Your task to perform on an android device: open wifi settings Image 0: 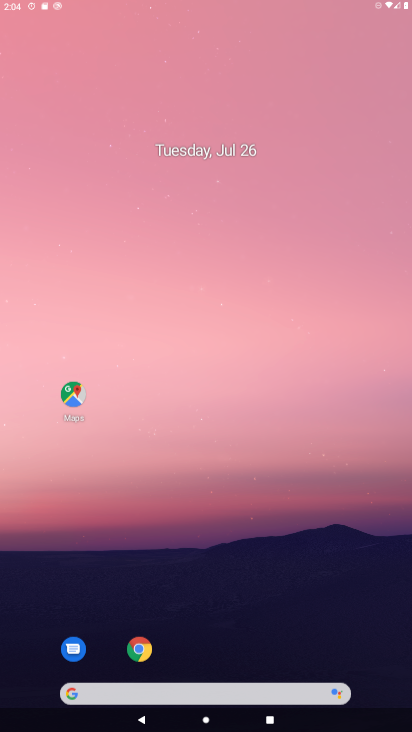
Step 0: drag from (182, 180) to (123, 6)
Your task to perform on an android device: open wifi settings Image 1: 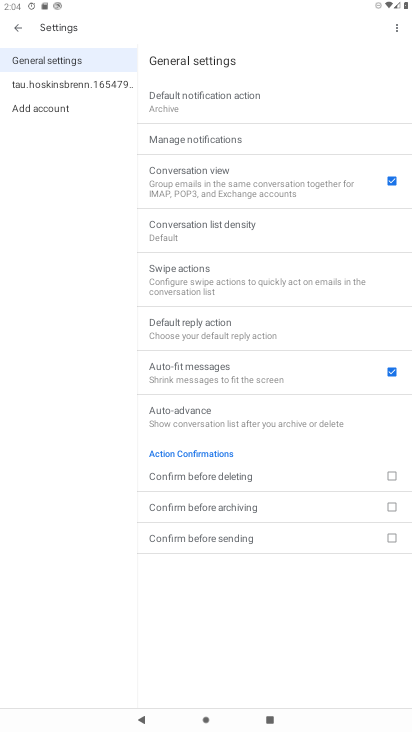
Step 1: press home button
Your task to perform on an android device: open wifi settings Image 2: 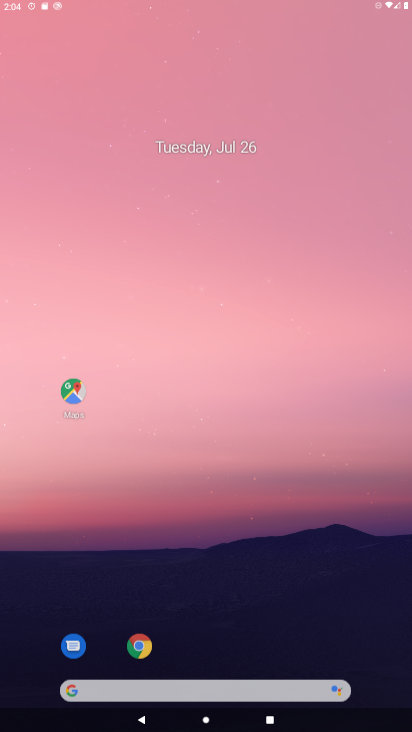
Step 2: drag from (351, 679) to (137, 17)
Your task to perform on an android device: open wifi settings Image 3: 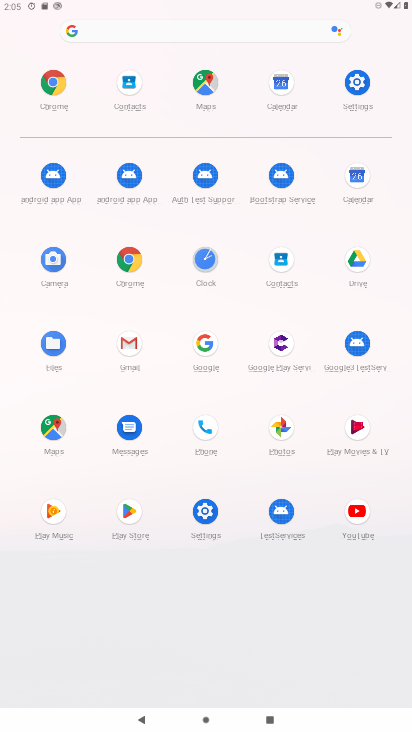
Step 3: click (203, 517)
Your task to perform on an android device: open wifi settings Image 4: 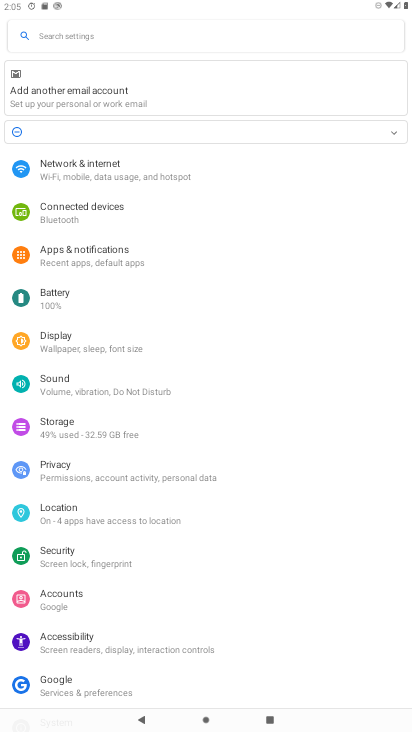
Step 4: click (104, 169)
Your task to perform on an android device: open wifi settings Image 5: 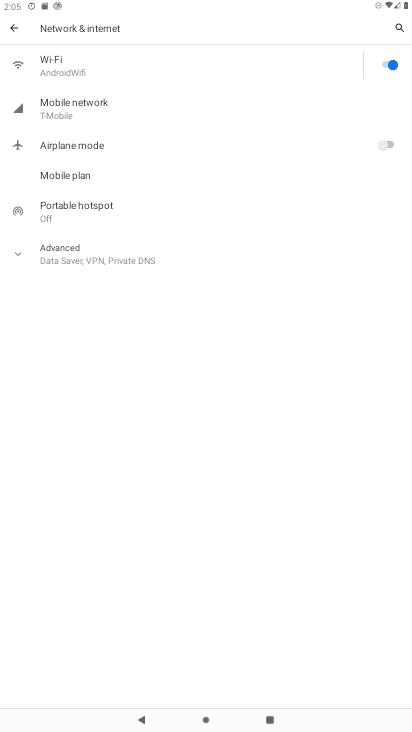
Step 5: click (126, 65)
Your task to perform on an android device: open wifi settings Image 6: 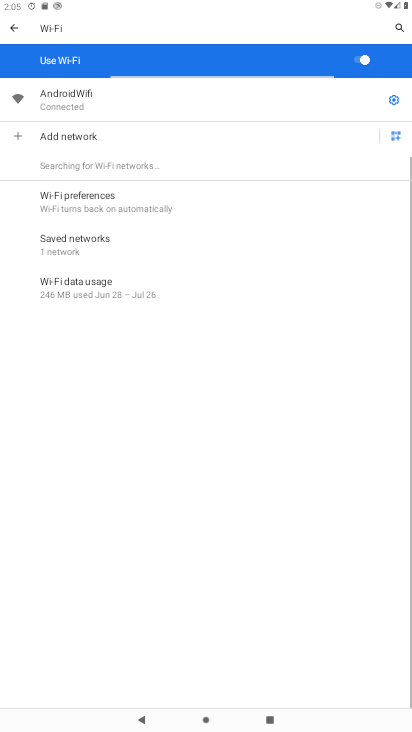
Step 6: task complete